Your task to perform on an android device: turn off wifi Image 0: 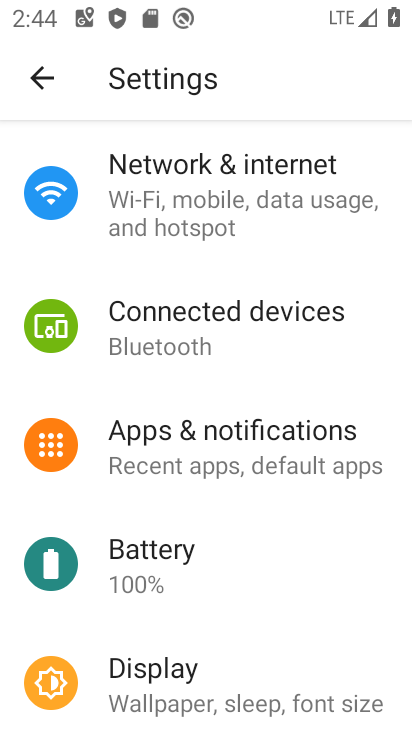
Step 0: press home button
Your task to perform on an android device: turn off wifi Image 1: 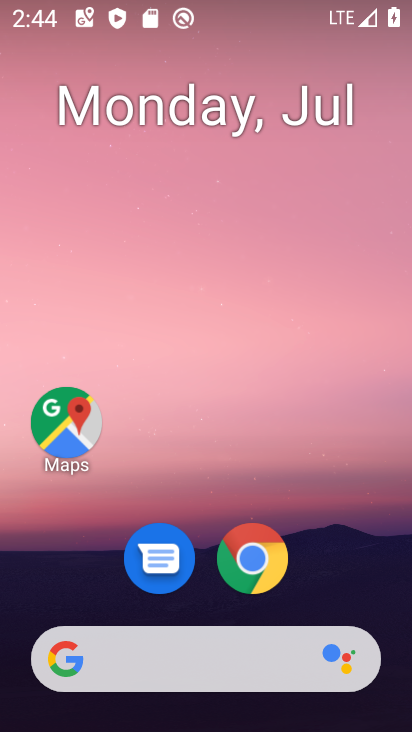
Step 1: drag from (385, 564) to (392, 137)
Your task to perform on an android device: turn off wifi Image 2: 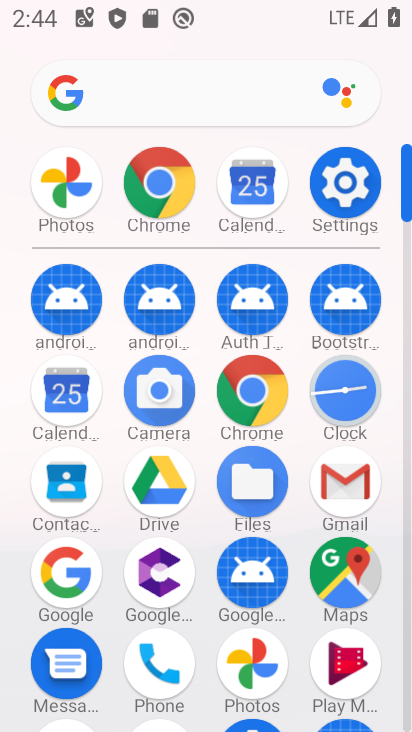
Step 2: click (353, 191)
Your task to perform on an android device: turn off wifi Image 3: 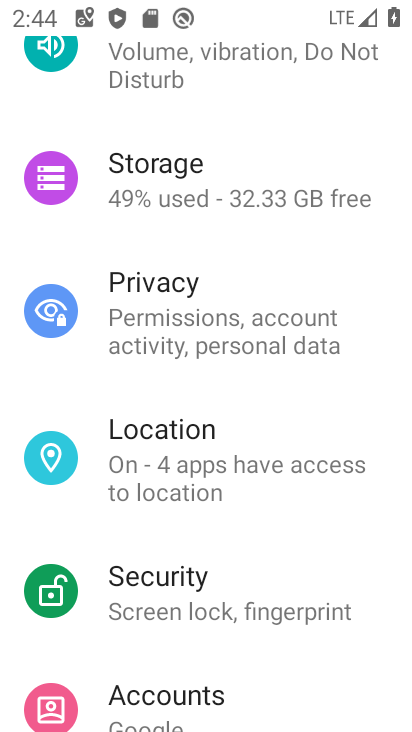
Step 3: drag from (362, 269) to (367, 360)
Your task to perform on an android device: turn off wifi Image 4: 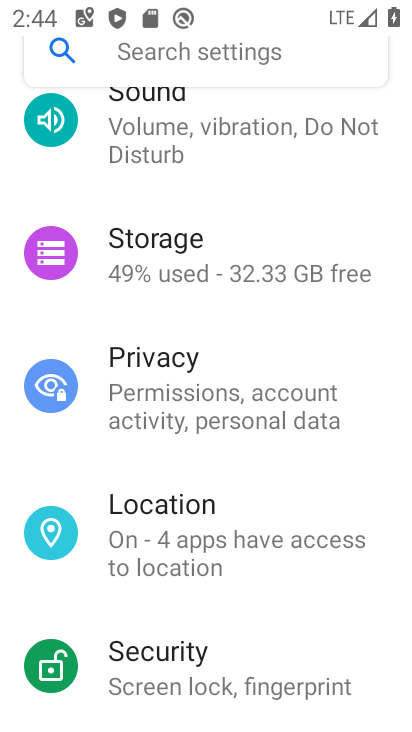
Step 4: drag from (379, 237) to (382, 337)
Your task to perform on an android device: turn off wifi Image 5: 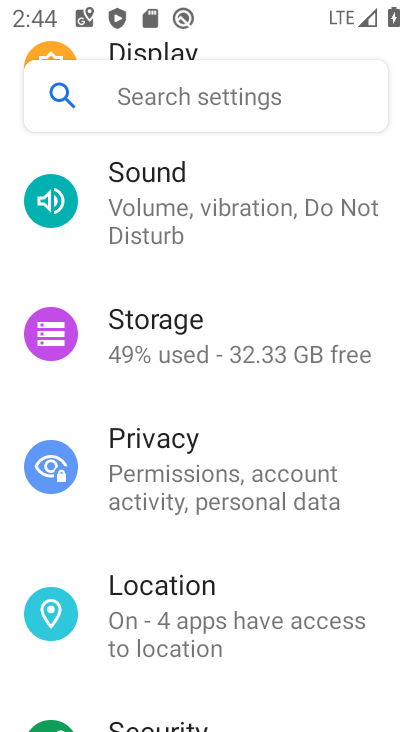
Step 5: drag from (364, 261) to (364, 382)
Your task to perform on an android device: turn off wifi Image 6: 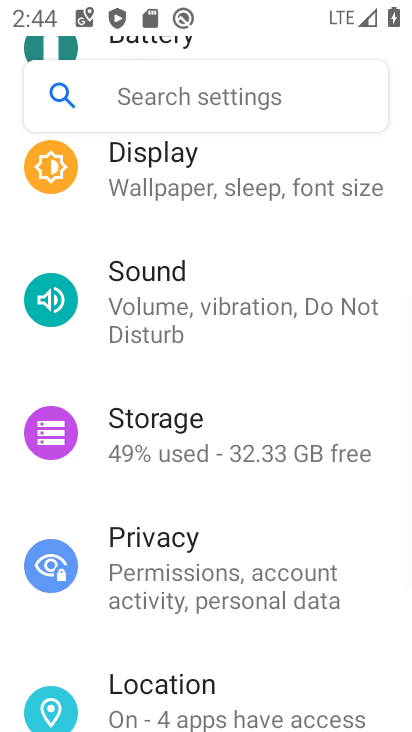
Step 6: drag from (366, 247) to (368, 370)
Your task to perform on an android device: turn off wifi Image 7: 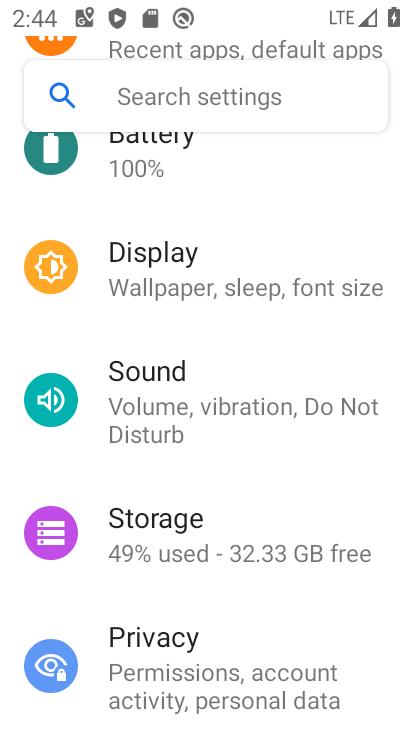
Step 7: drag from (367, 207) to (371, 330)
Your task to perform on an android device: turn off wifi Image 8: 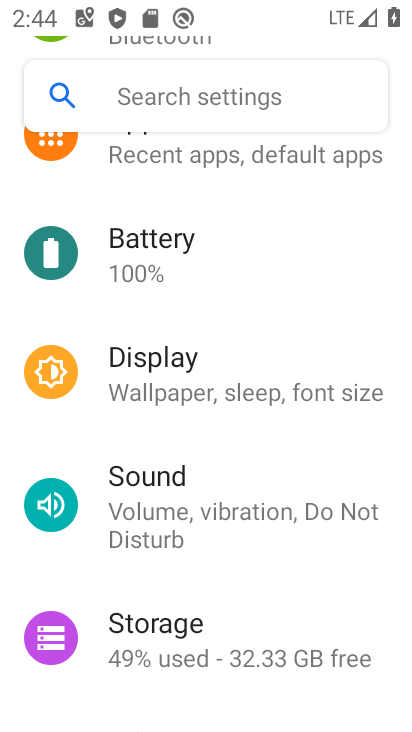
Step 8: drag from (357, 198) to (354, 322)
Your task to perform on an android device: turn off wifi Image 9: 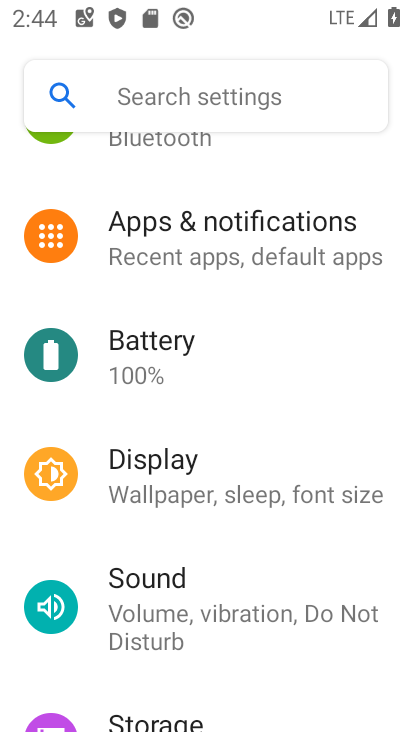
Step 9: drag from (368, 177) to (371, 362)
Your task to perform on an android device: turn off wifi Image 10: 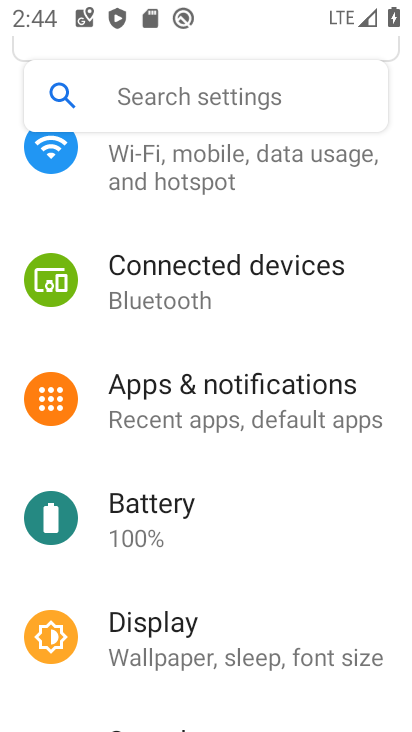
Step 10: drag from (371, 193) to (361, 380)
Your task to perform on an android device: turn off wifi Image 11: 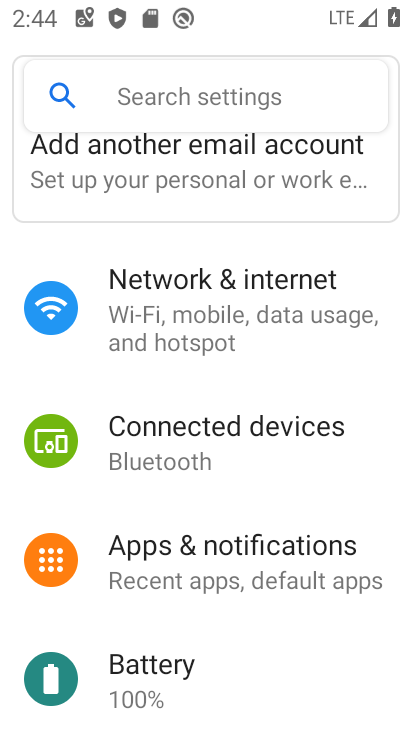
Step 11: click (265, 309)
Your task to perform on an android device: turn off wifi Image 12: 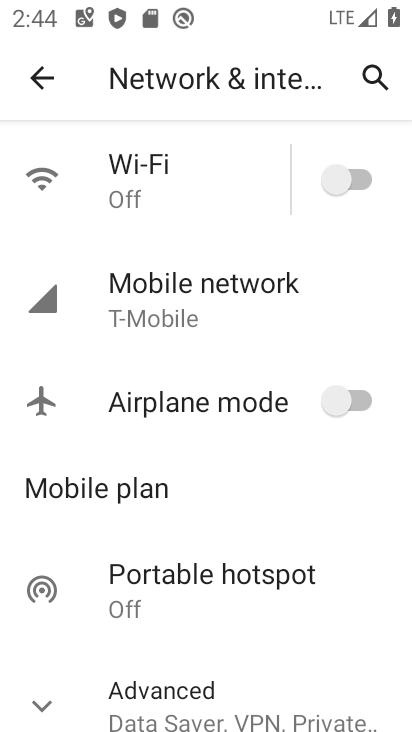
Step 12: task complete